Your task to perform on an android device: open chrome privacy settings Image 0: 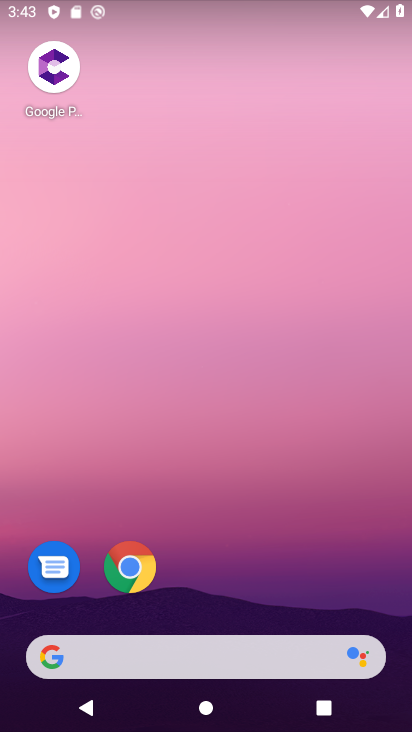
Step 0: press home button
Your task to perform on an android device: open chrome privacy settings Image 1: 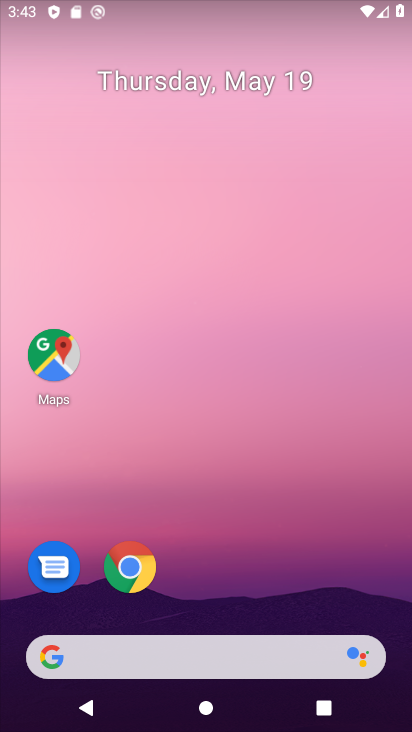
Step 1: click (129, 566)
Your task to perform on an android device: open chrome privacy settings Image 2: 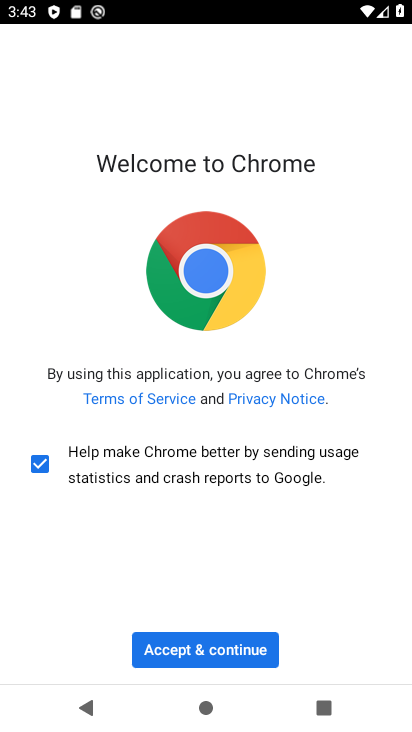
Step 2: click (202, 648)
Your task to perform on an android device: open chrome privacy settings Image 3: 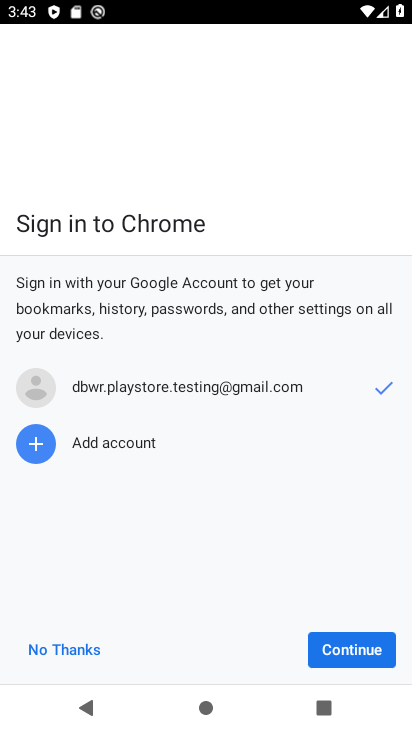
Step 3: click (354, 648)
Your task to perform on an android device: open chrome privacy settings Image 4: 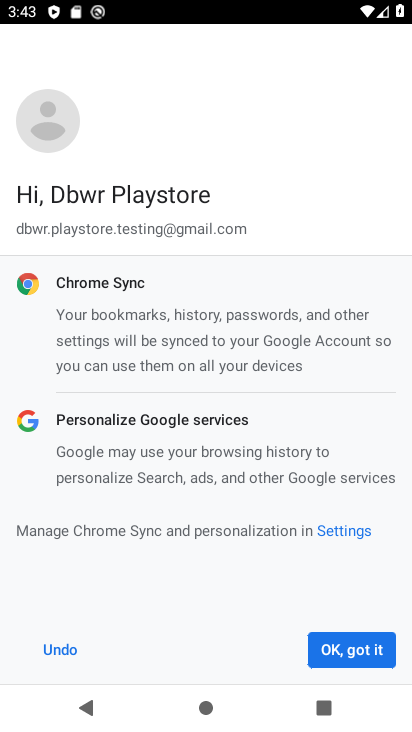
Step 4: click (354, 648)
Your task to perform on an android device: open chrome privacy settings Image 5: 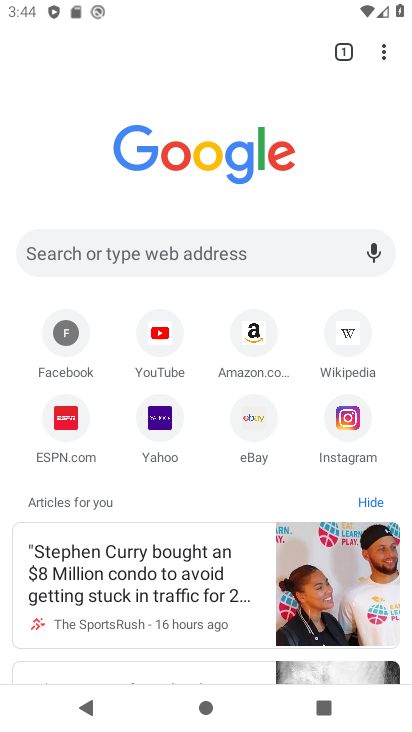
Step 5: click (383, 53)
Your task to perform on an android device: open chrome privacy settings Image 6: 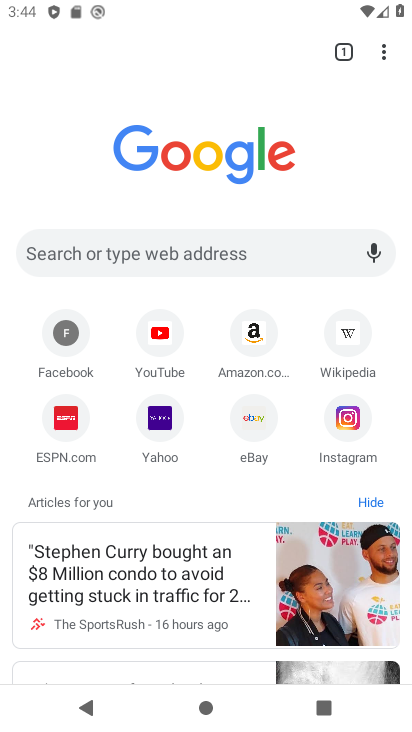
Step 6: click (383, 53)
Your task to perform on an android device: open chrome privacy settings Image 7: 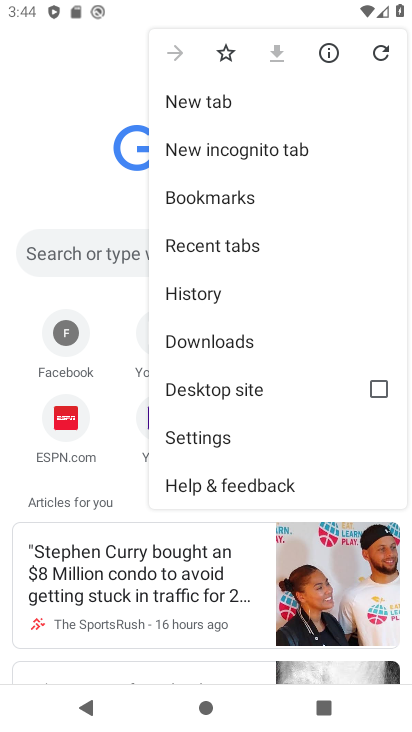
Step 7: click (199, 444)
Your task to perform on an android device: open chrome privacy settings Image 8: 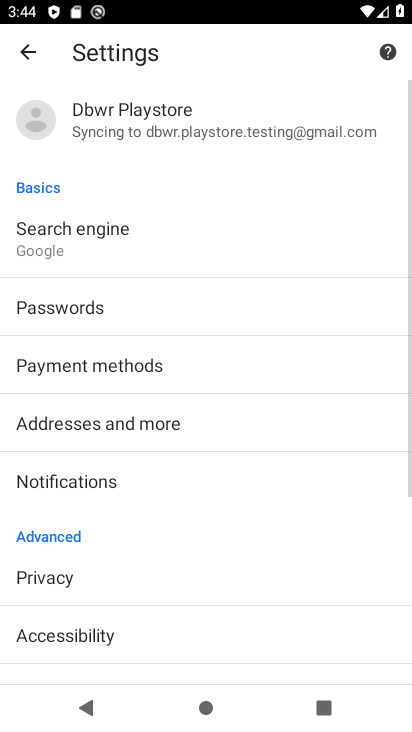
Step 8: click (48, 580)
Your task to perform on an android device: open chrome privacy settings Image 9: 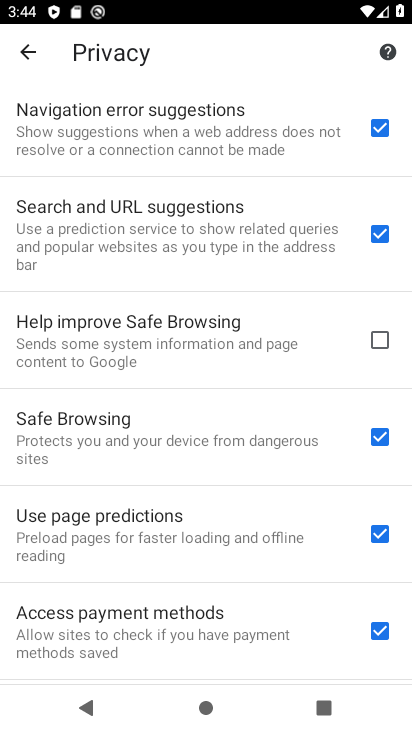
Step 9: task complete